Your task to perform on an android device: Open the calendar app, open the side menu, and click the "Day" option Image 0: 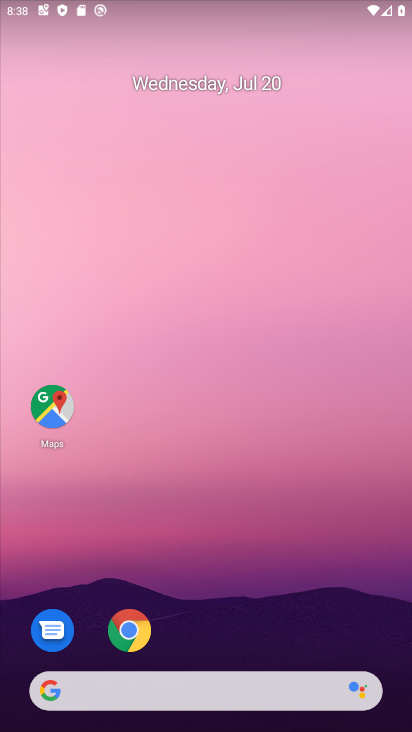
Step 0: drag from (390, 706) to (302, 37)
Your task to perform on an android device: Open the calendar app, open the side menu, and click the "Day" option Image 1: 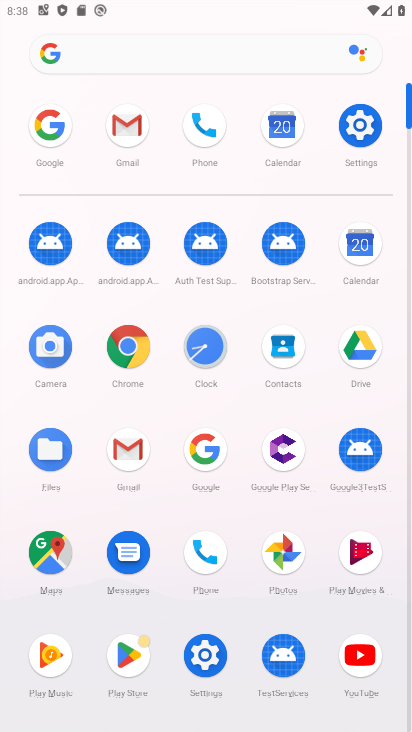
Step 1: click (354, 245)
Your task to perform on an android device: Open the calendar app, open the side menu, and click the "Day" option Image 2: 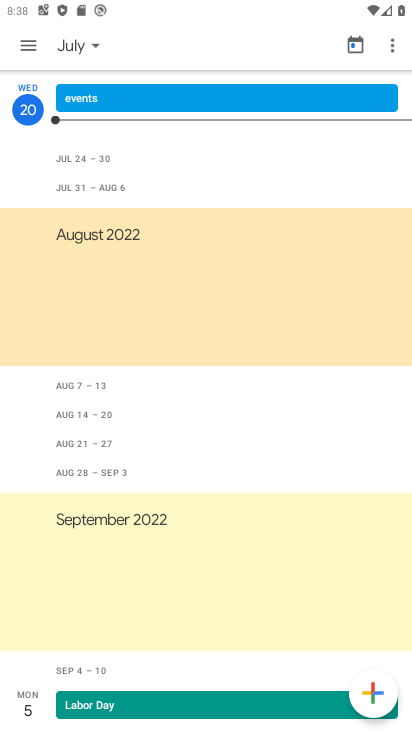
Step 2: click (30, 45)
Your task to perform on an android device: Open the calendar app, open the side menu, and click the "Day" option Image 3: 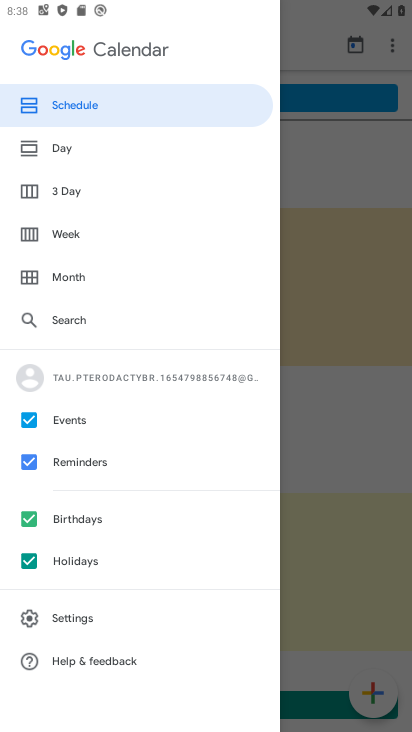
Step 3: click (59, 144)
Your task to perform on an android device: Open the calendar app, open the side menu, and click the "Day" option Image 4: 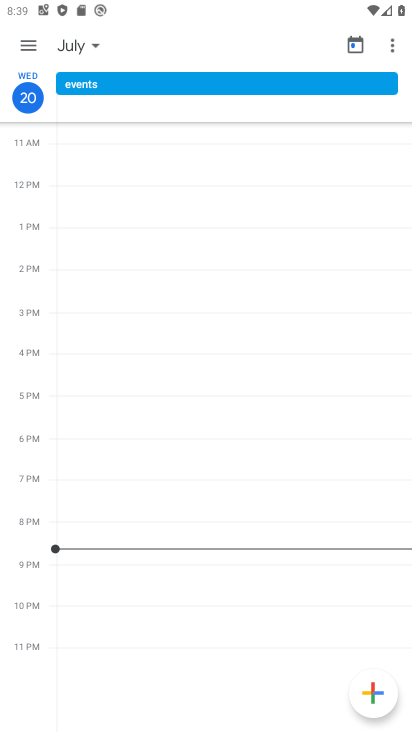
Step 4: task complete